Your task to perform on an android device: toggle priority inbox in the gmail app Image 0: 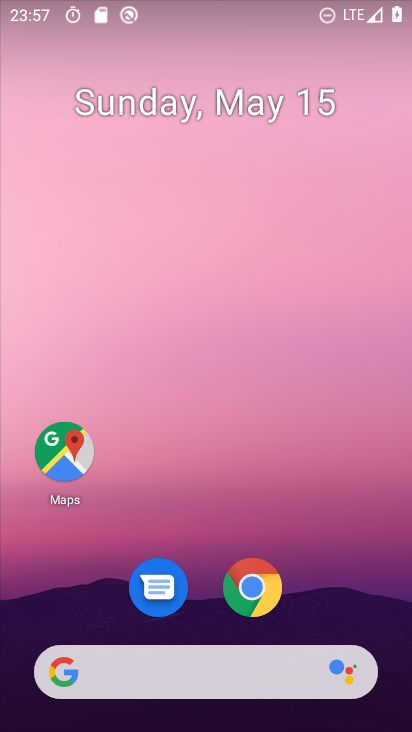
Step 0: drag from (216, 613) to (202, 103)
Your task to perform on an android device: toggle priority inbox in the gmail app Image 1: 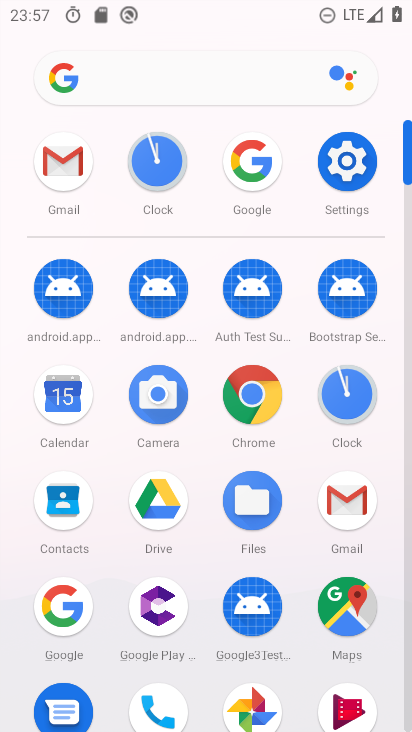
Step 1: click (75, 156)
Your task to perform on an android device: toggle priority inbox in the gmail app Image 2: 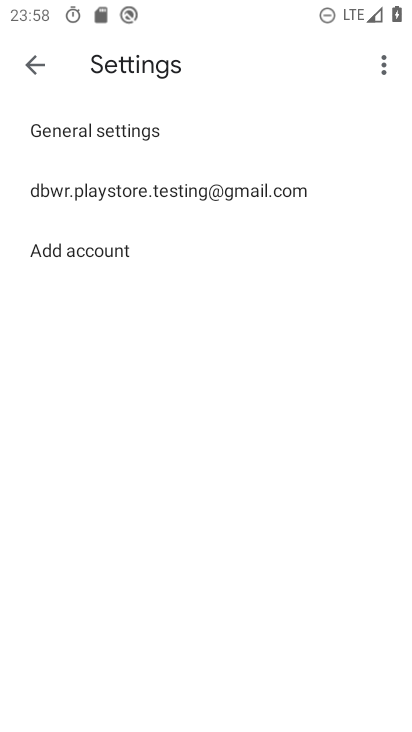
Step 2: click (82, 192)
Your task to perform on an android device: toggle priority inbox in the gmail app Image 3: 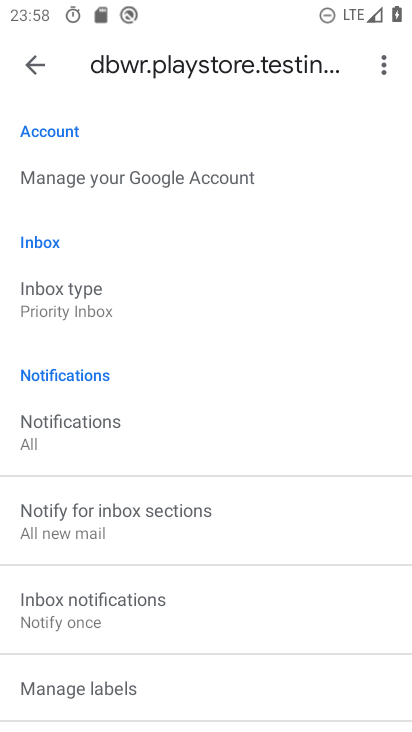
Step 3: click (99, 299)
Your task to perform on an android device: toggle priority inbox in the gmail app Image 4: 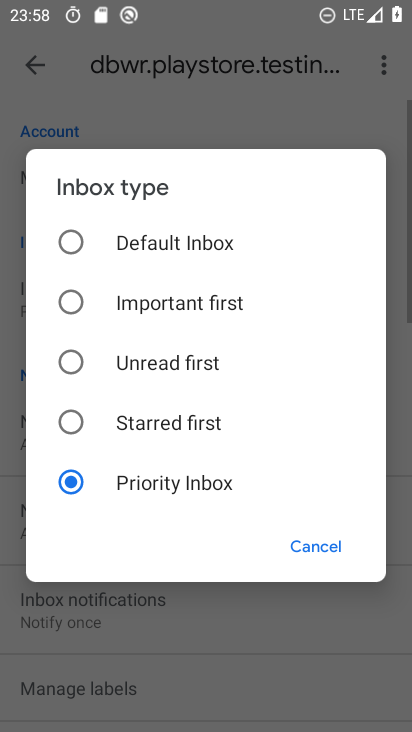
Step 4: click (90, 239)
Your task to perform on an android device: toggle priority inbox in the gmail app Image 5: 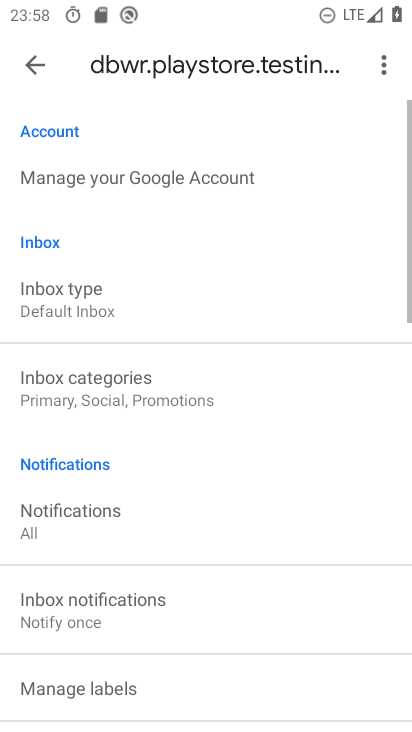
Step 5: task complete